Your task to perform on an android device: turn on priority inbox in the gmail app Image 0: 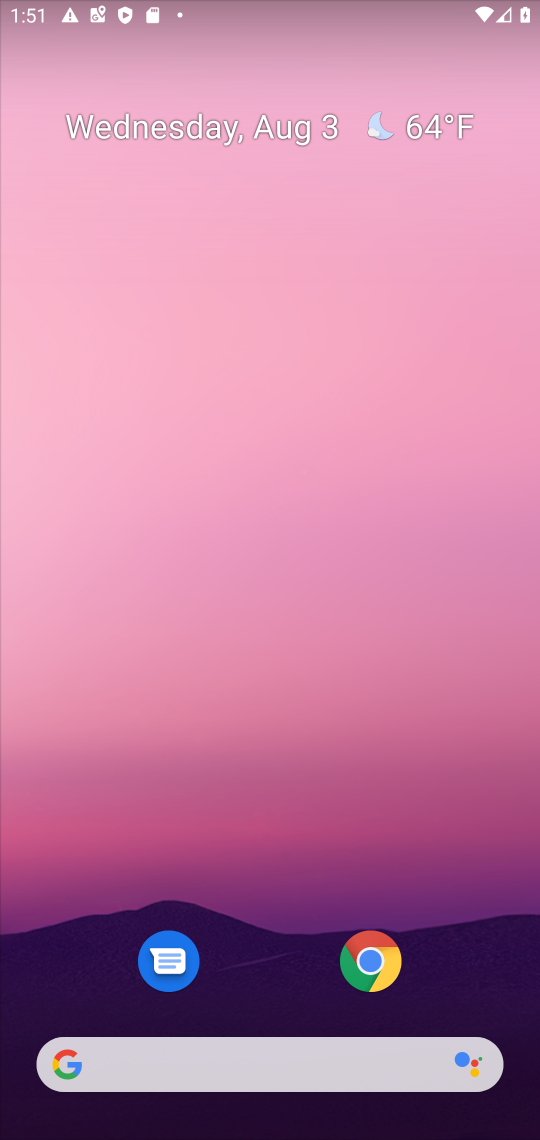
Step 0: drag from (301, 961) to (336, 85)
Your task to perform on an android device: turn on priority inbox in the gmail app Image 1: 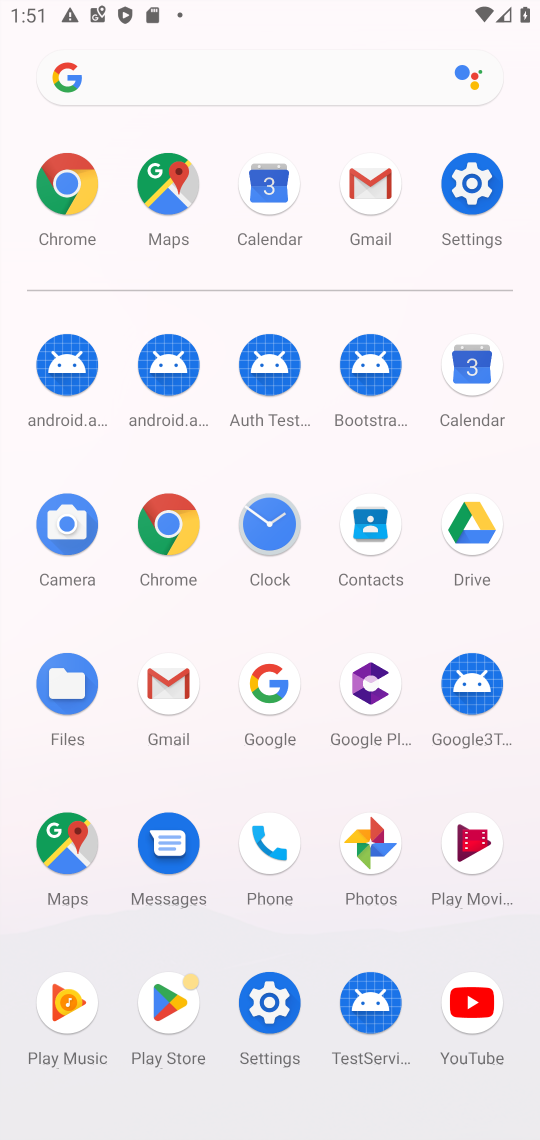
Step 1: click (362, 192)
Your task to perform on an android device: turn on priority inbox in the gmail app Image 2: 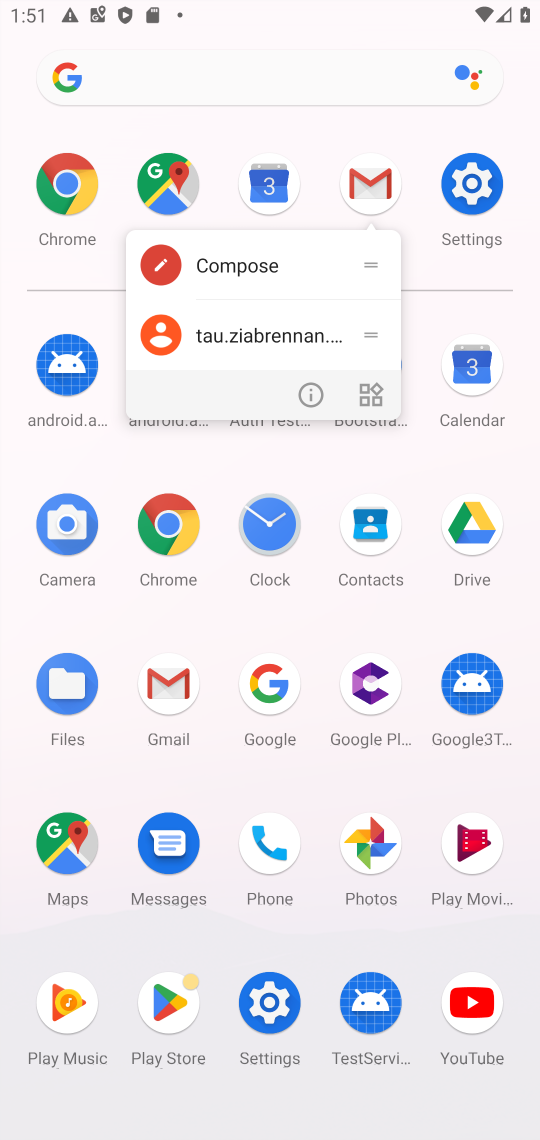
Step 2: click (364, 190)
Your task to perform on an android device: turn on priority inbox in the gmail app Image 3: 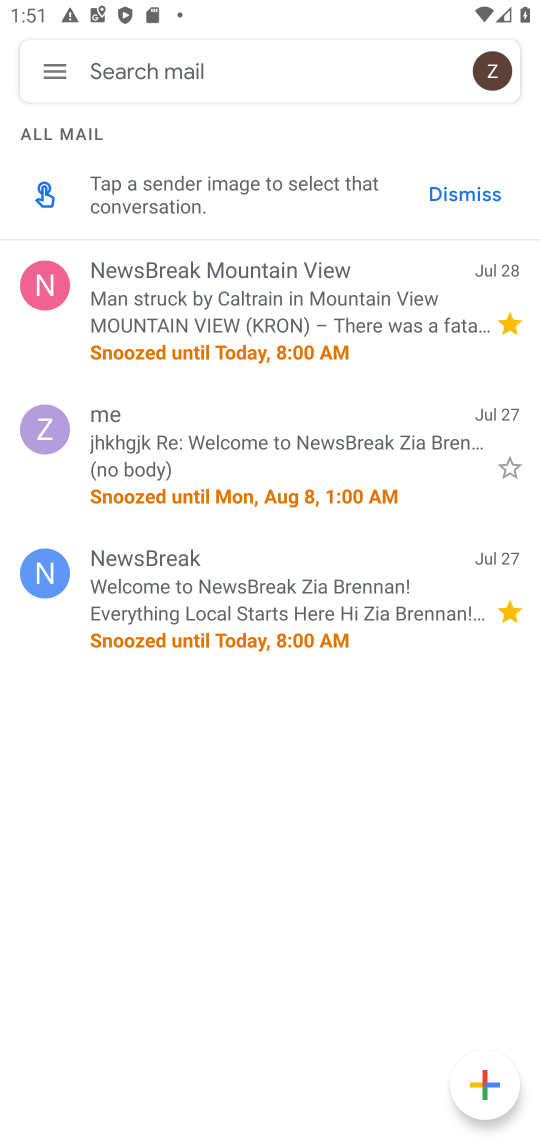
Step 3: click (53, 71)
Your task to perform on an android device: turn on priority inbox in the gmail app Image 4: 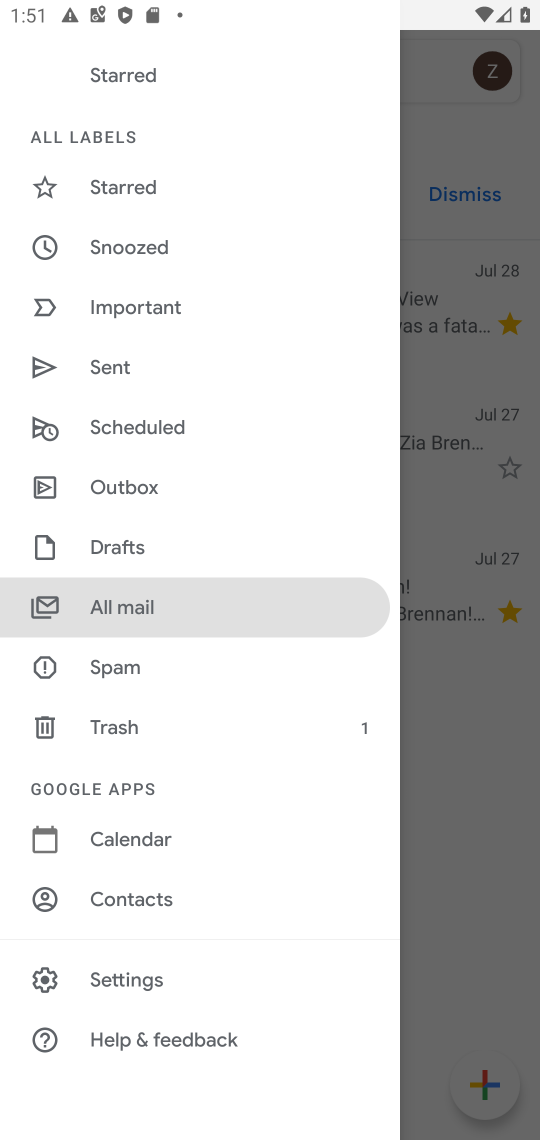
Step 4: click (135, 980)
Your task to perform on an android device: turn on priority inbox in the gmail app Image 5: 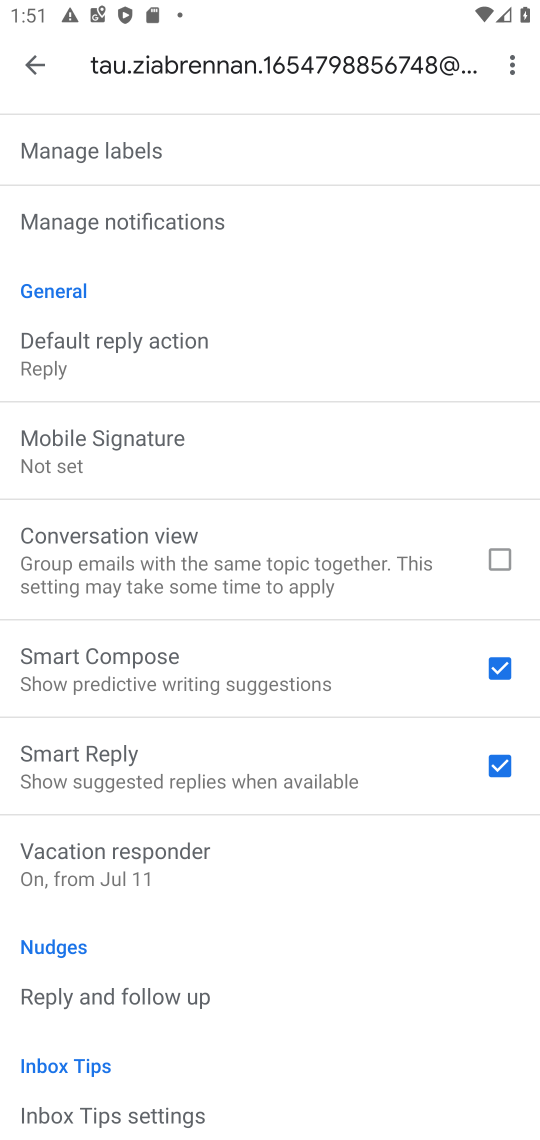
Step 5: drag from (226, 266) to (243, 650)
Your task to perform on an android device: turn on priority inbox in the gmail app Image 6: 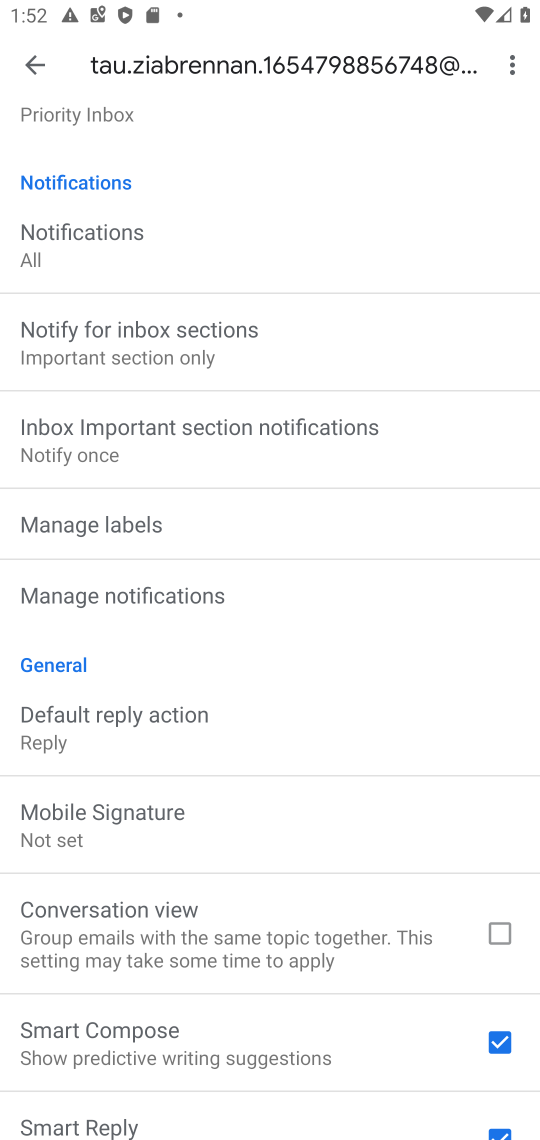
Step 6: drag from (223, 272) to (238, 642)
Your task to perform on an android device: turn on priority inbox in the gmail app Image 7: 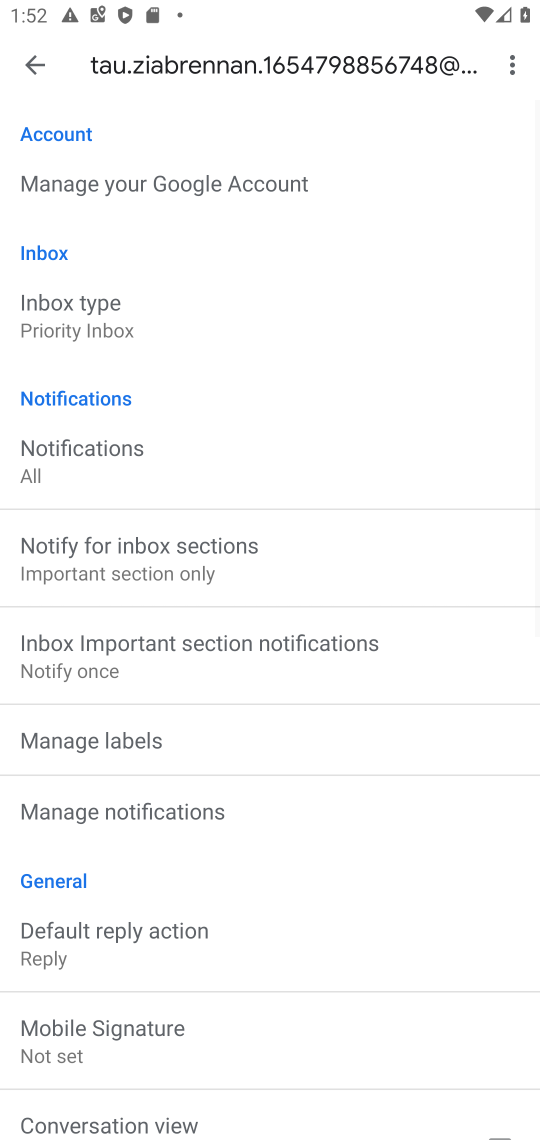
Step 7: click (64, 331)
Your task to perform on an android device: turn on priority inbox in the gmail app Image 8: 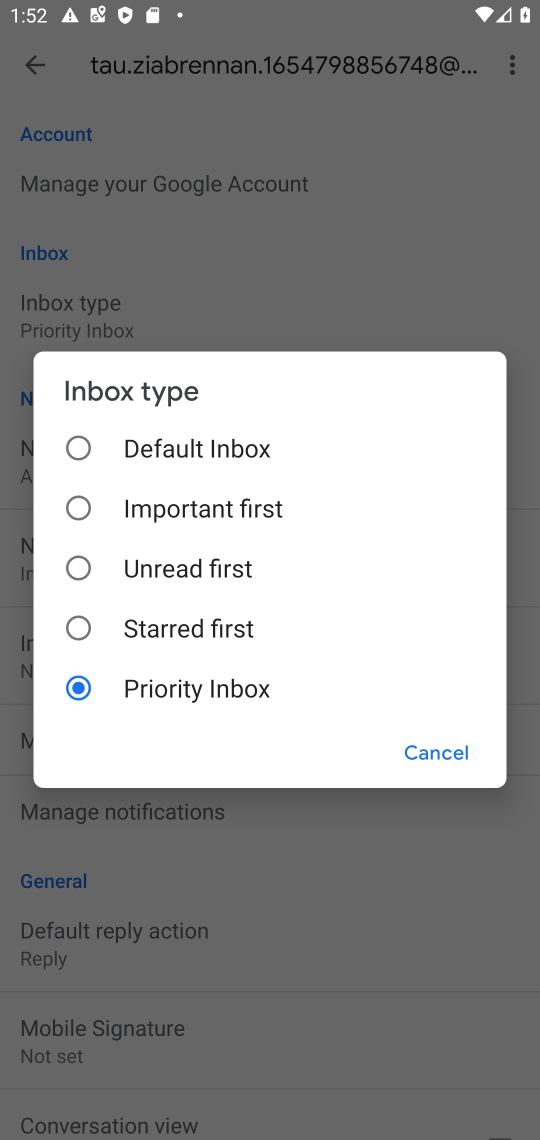
Step 8: task complete